Your task to perform on an android device: delete a single message in the gmail app Image 0: 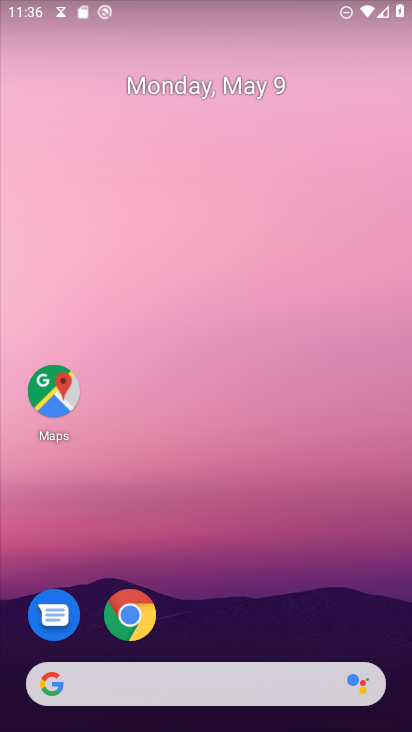
Step 0: drag from (212, 712) to (212, 114)
Your task to perform on an android device: delete a single message in the gmail app Image 1: 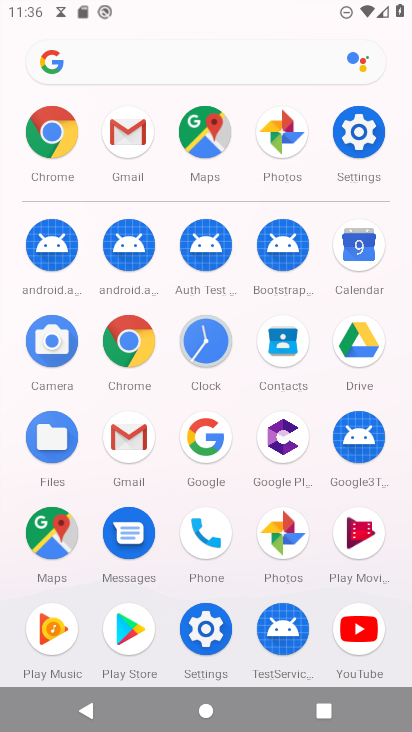
Step 1: click (136, 438)
Your task to perform on an android device: delete a single message in the gmail app Image 2: 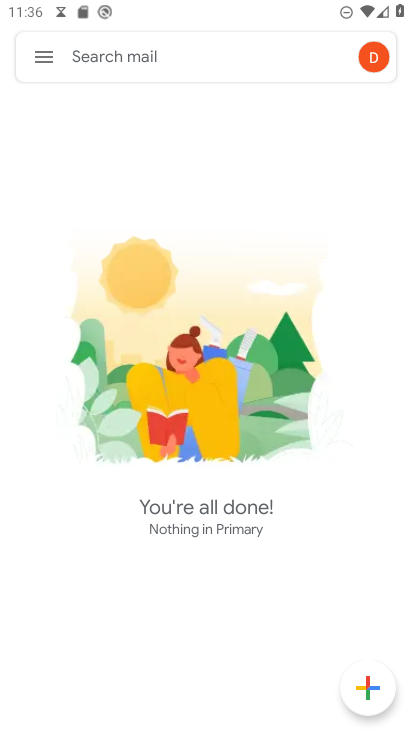
Step 2: click (42, 57)
Your task to perform on an android device: delete a single message in the gmail app Image 3: 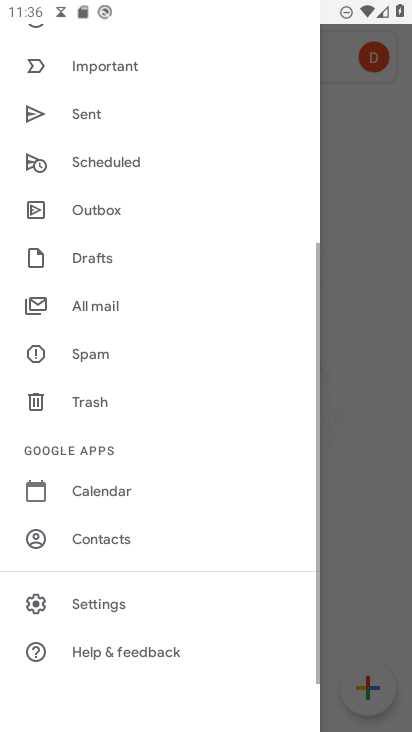
Step 3: drag from (189, 110) to (182, 553)
Your task to perform on an android device: delete a single message in the gmail app Image 4: 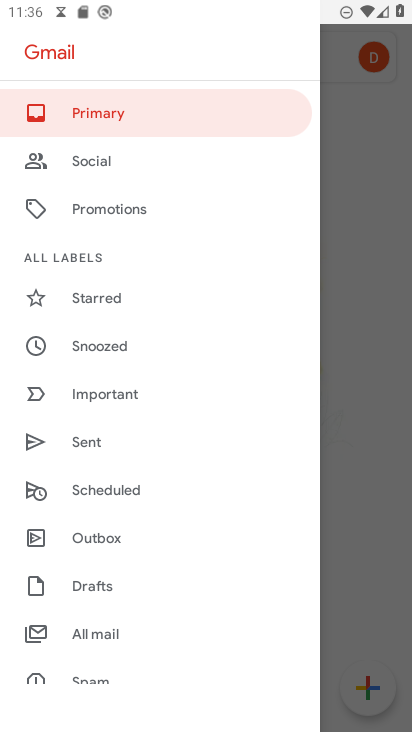
Step 4: click (110, 115)
Your task to perform on an android device: delete a single message in the gmail app Image 5: 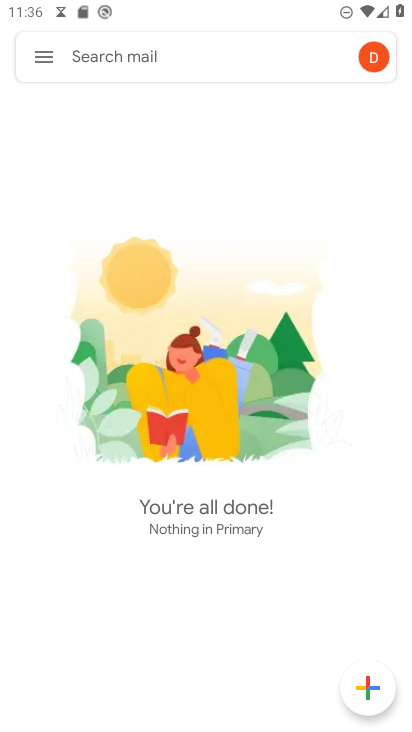
Step 5: task complete